Your task to perform on an android device: Find coffee shops on Maps Image 0: 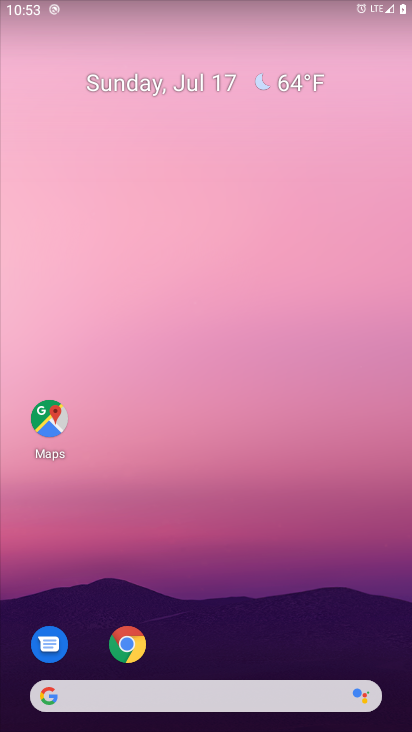
Step 0: press home button
Your task to perform on an android device: Find coffee shops on Maps Image 1: 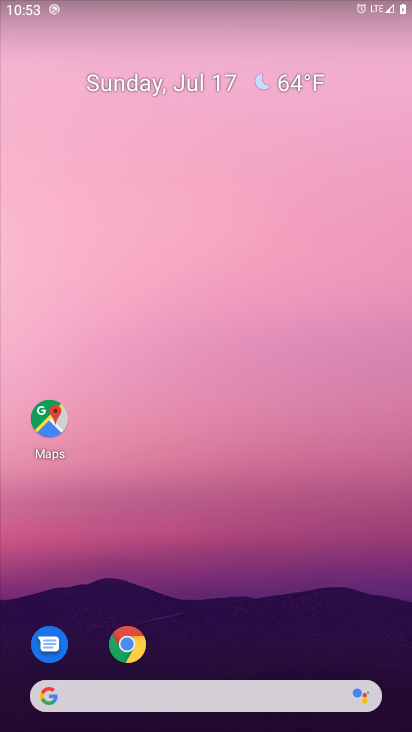
Step 1: click (35, 411)
Your task to perform on an android device: Find coffee shops on Maps Image 2: 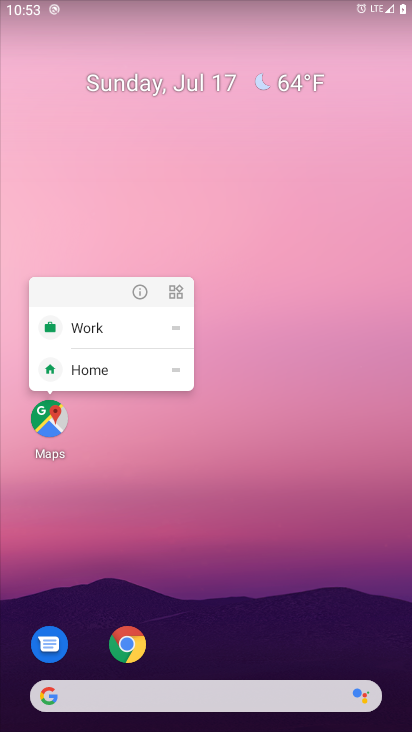
Step 2: click (40, 408)
Your task to perform on an android device: Find coffee shops on Maps Image 3: 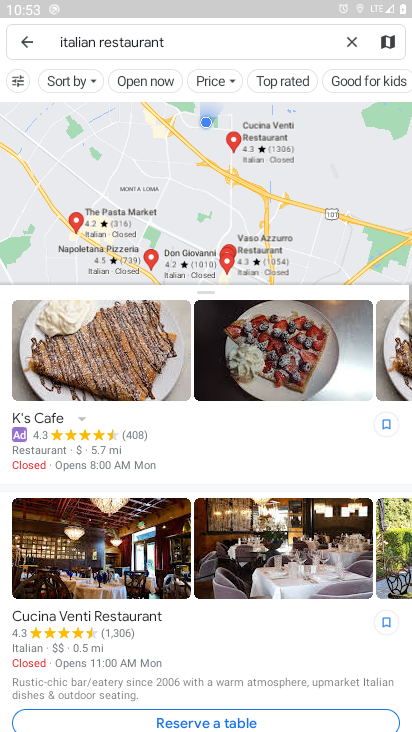
Step 3: click (348, 40)
Your task to perform on an android device: Find coffee shops on Maps Image 4: 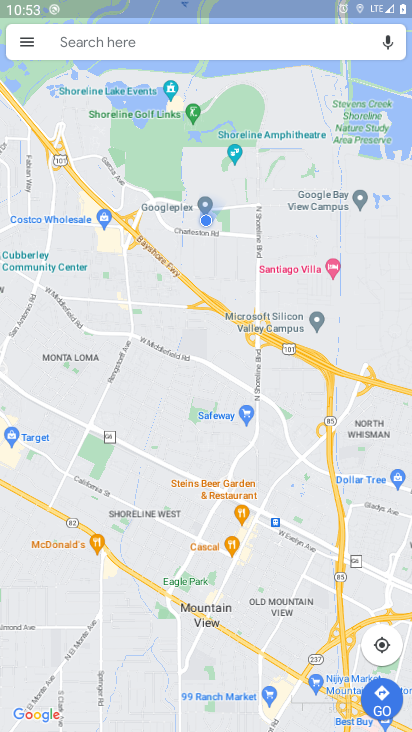
Step 4: type "coffee shops"
Your task to perform on an android device: Find coffee shops on Maps Image 5: 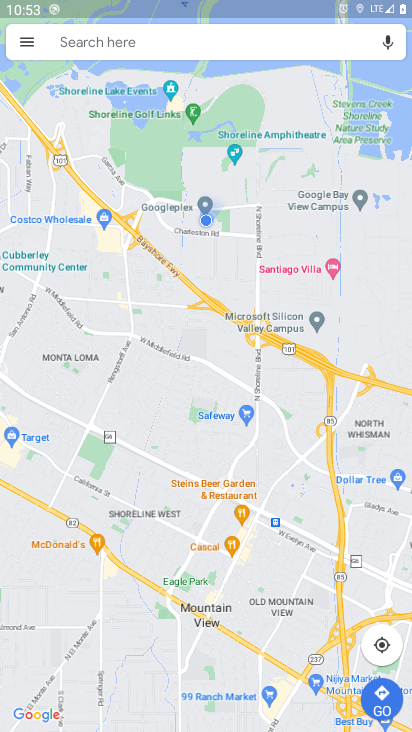
Step 5: click (79, 38)
Your task to perform on an android device: Find coffee shops on Maps Image 6: 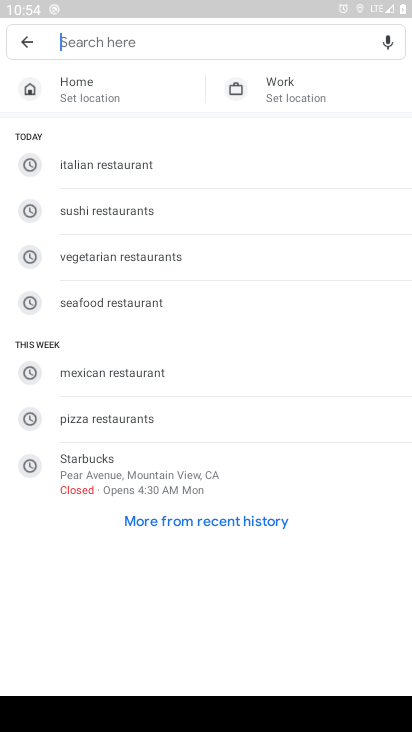
Step 6: type "coffee shops"
Your task to perform on an android device: Find coffee shops on Maps Image 7: 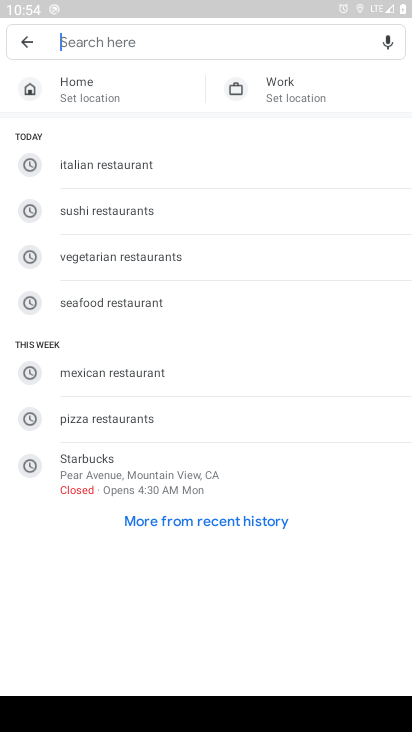
Step 7: click (162, 35)
Your task to perform on an android device: Find coffee shops on Maps Image 8: 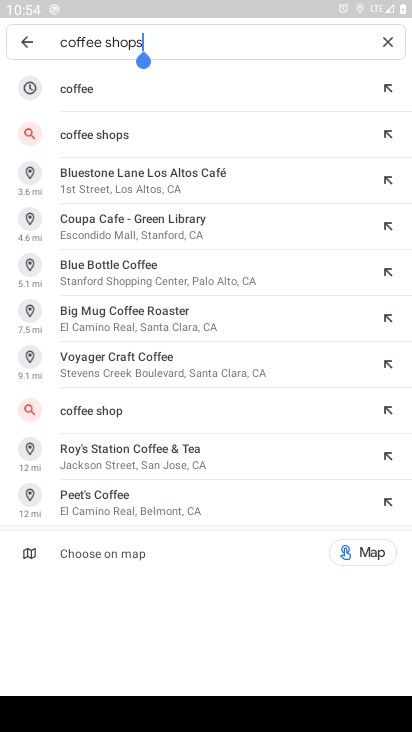
Step 8: press enter
Your task to perform on an android device: Find coffee shops on Maps Image 9: 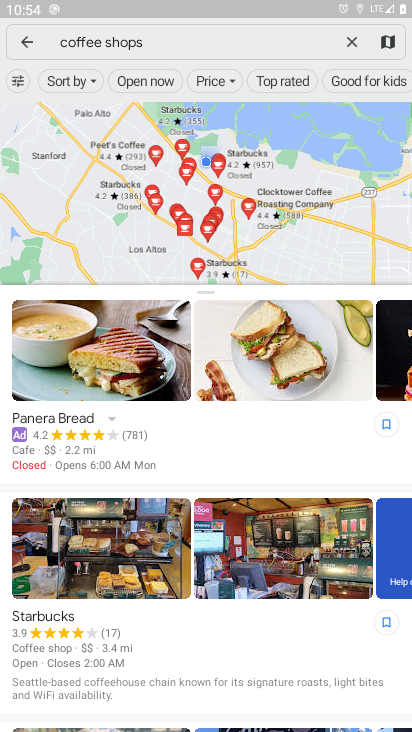
Step 9: task complete